Your task to perform on an android device: Search for Italian restaurants on Maps Image 0: 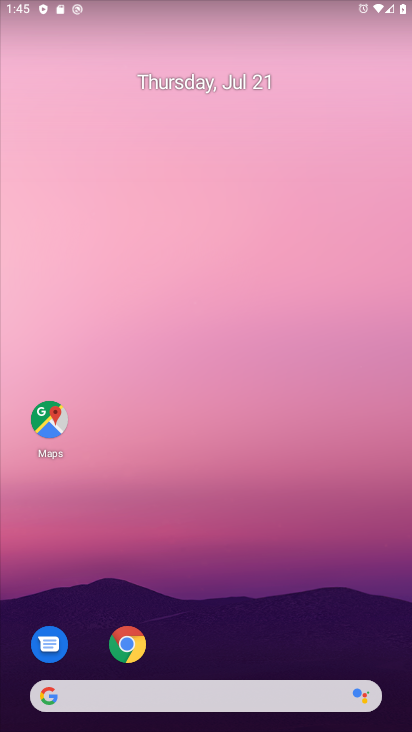
Step 0: click (50, 420)
Your task to perform on an android device: Search for Italian restaurants on Maps Image 1: 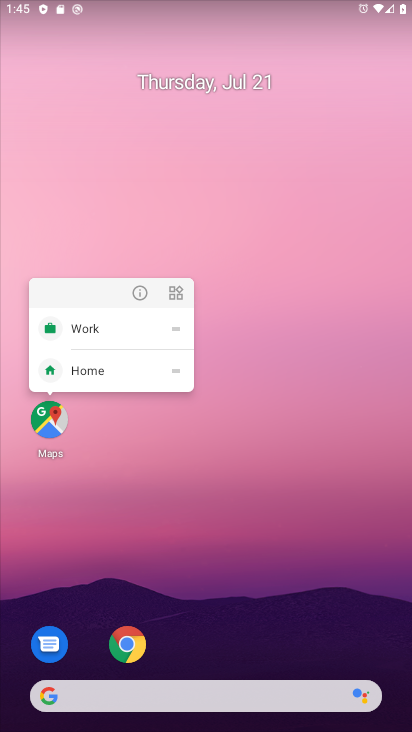
Step 1: click (44, 403)
Your task to perform on an android device: Search for Italian restaurants on Maps Image 2: 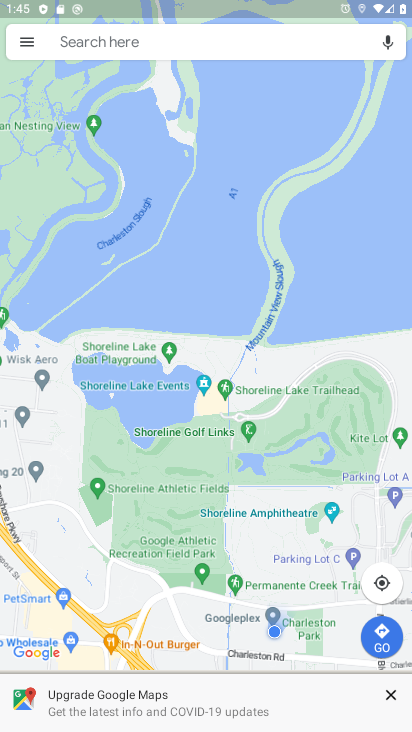
Step 2: click (79, 44)
Your task to perform on an android device: Search for Italian restaurants on Maps Image 3: 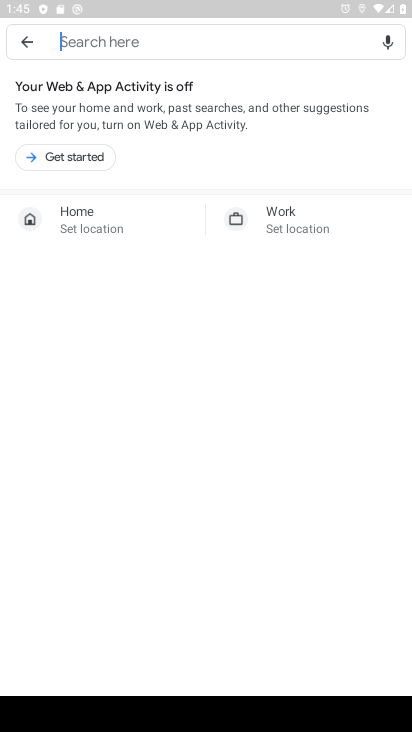
Step 3: click (74, 34)
Your task to perform on an android device: Search for Italian restaurants on Maps Image 4: 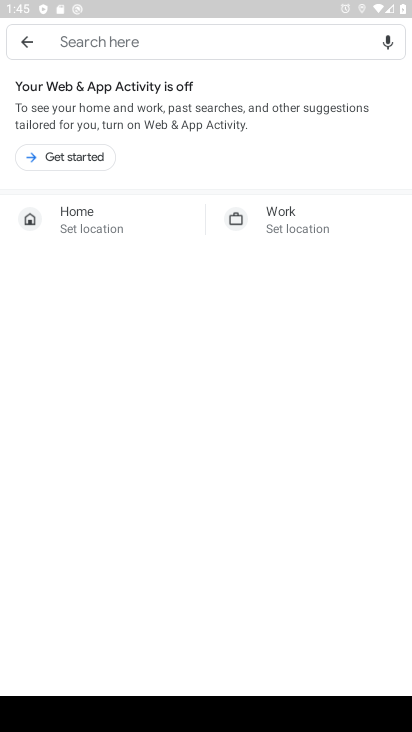
Step 4: type "Italian restaurants "
Your task to perform on an android device: Search for Italian restaurants on Maps Image 5: 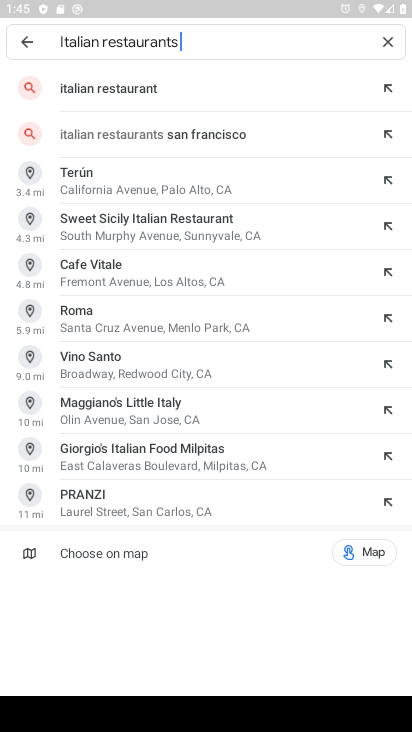
Step 5: click (118, 87)
Your task to perform on an android device: Search for Italian restaurants on Maps Image 6: 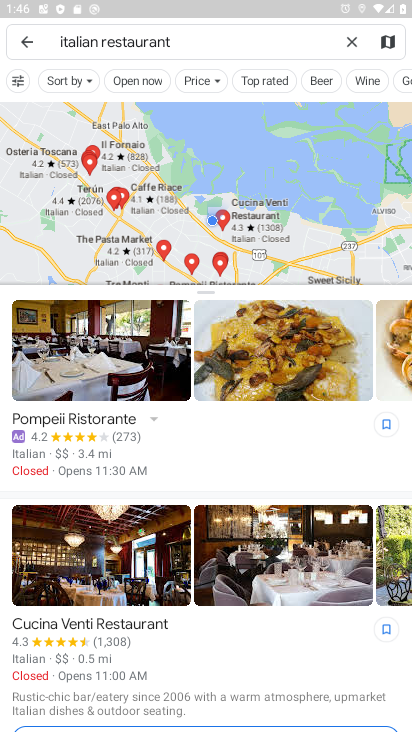
Step 6: task complete